Your task to perform on an android device: turn vacation reply on in the gmail app Image 0: 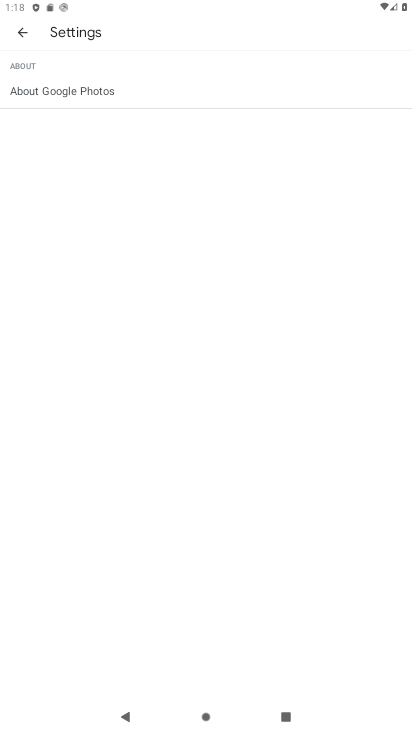
Step 0: press home button
Your task to perform on an android device: turn vacation reply on in the gmail app Image 1: 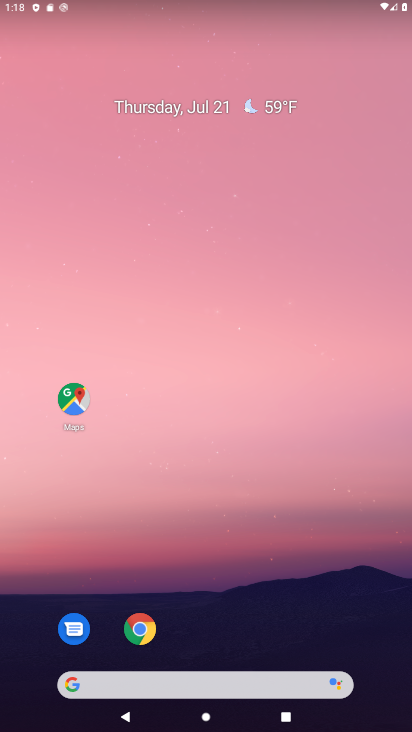
Step 1: drag from (210, 558) to (168, 14)
Your task to perform on an android device: turn vacation reply on in the gmail app Image 2: 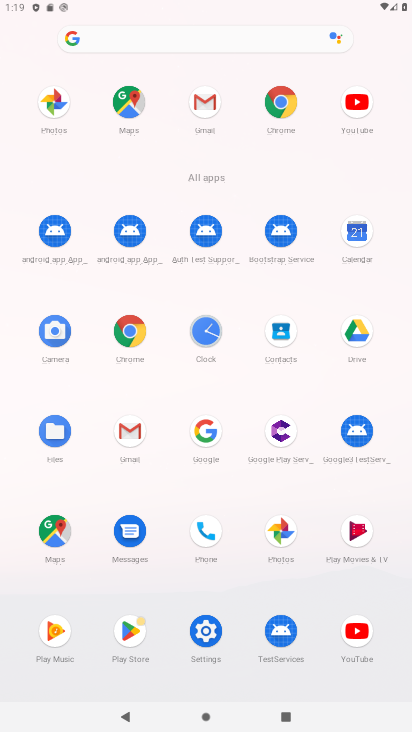
Step 2: click (199, 95)
Your task to perform on an android device: turn vacation reply on in the gmail app Image 3: 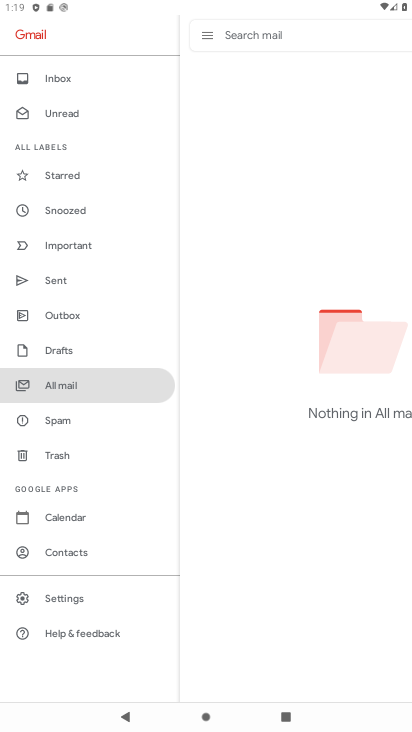
Step 3: click (61, 608)
Your task to perform on an android device: turn vacation reply on in the gmail app Image 4: 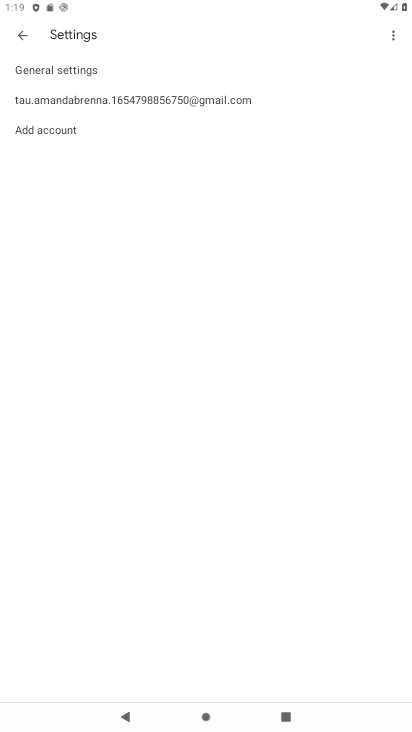
Step 4: click (100, 100)
Your task to perform on an android device: turn vacation reply on in the gmail app Image 5: 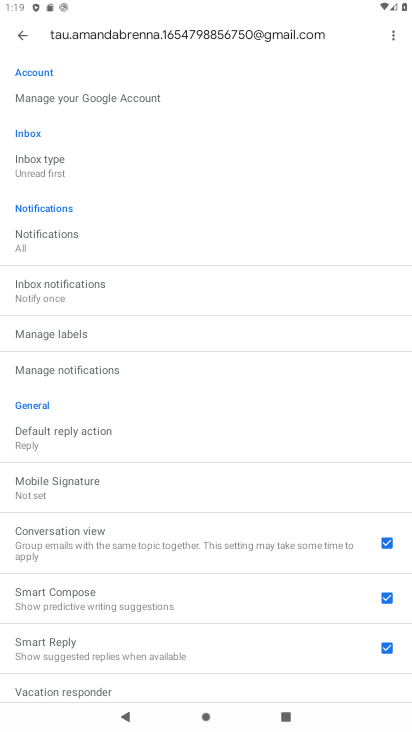
Step 5: click (109, 685)
Your task to perform on an android device: turn vacation reply on in the gmail app Image 6: 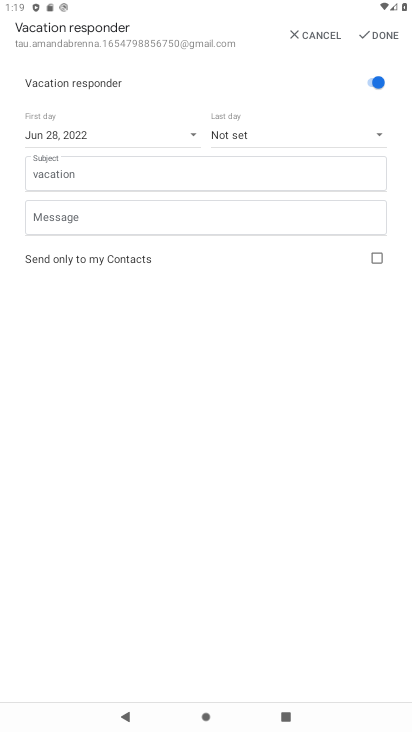
Step 6: click (373, 32)
Your task to perform on an android device: turn vacation reply on in the gmail app Image 7: 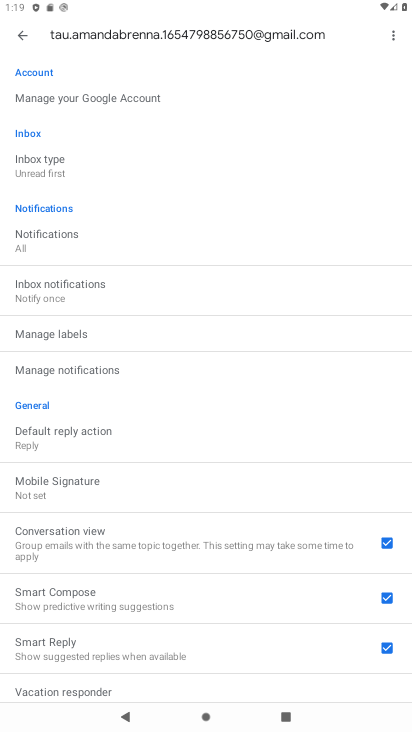
Step 7: task complete